Your task to perform on an android device: toggle pop-ups in chrome Image 0: 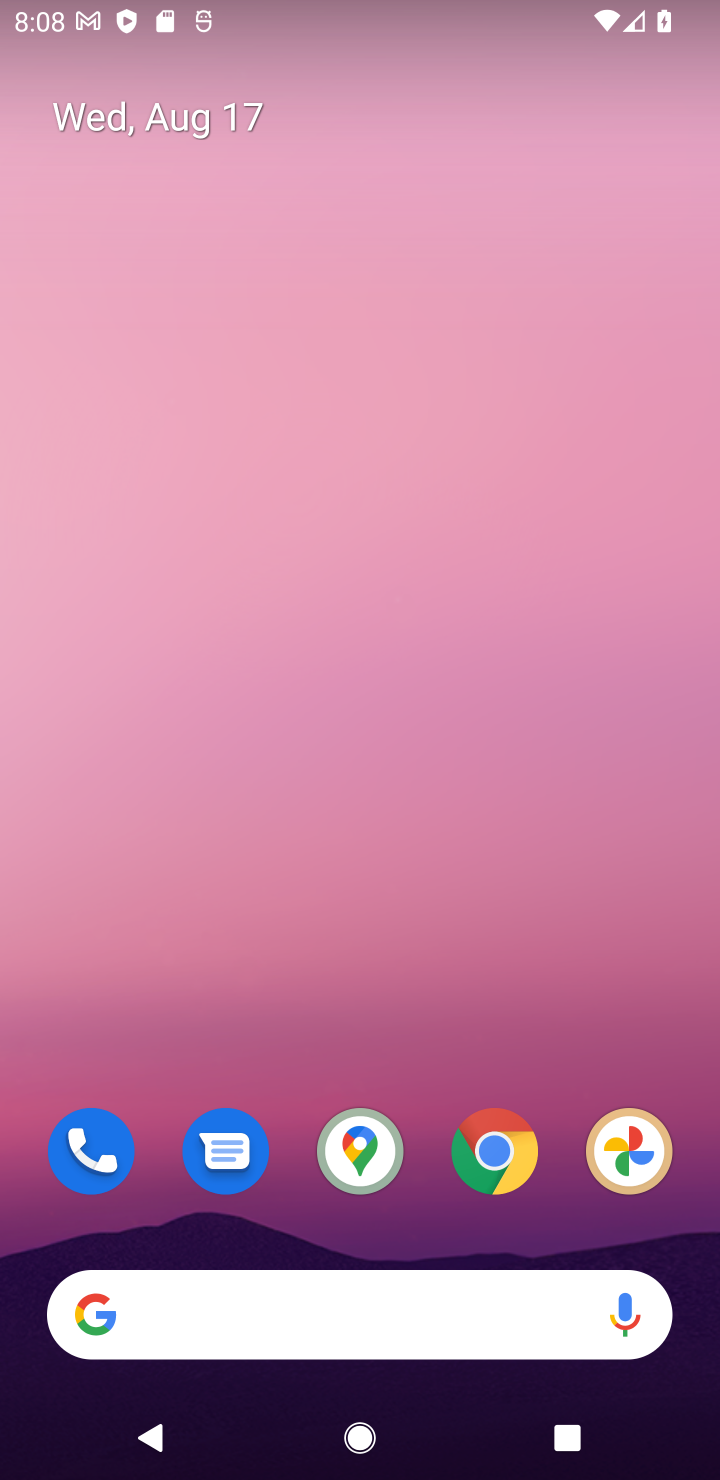
Step 0: drag from (585, 645) to (674, 4)
Your task to perform on an android device: toggle pop-ups in chrome Image 1: 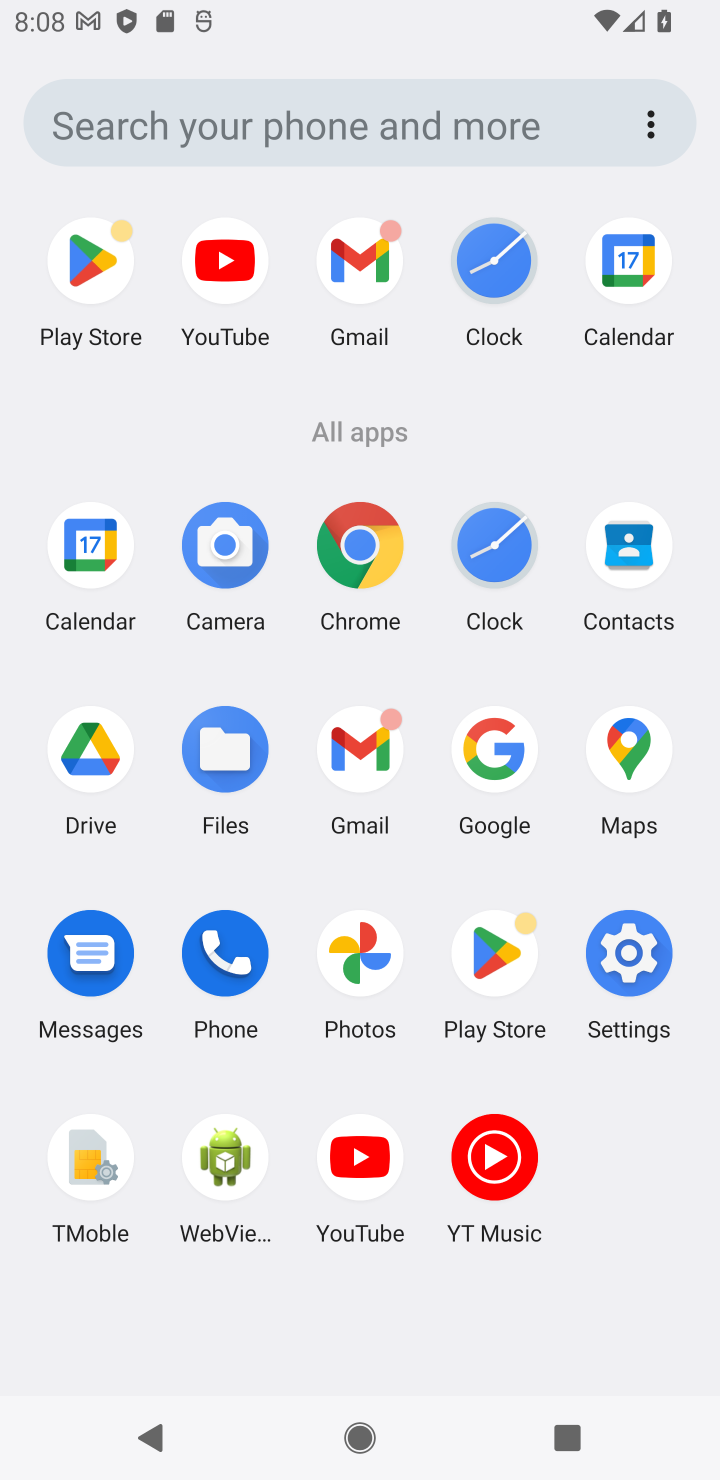
Step 1: click (350, 552)
Your task to perform on an android device: toggle pop-ups in chrome Image 2: 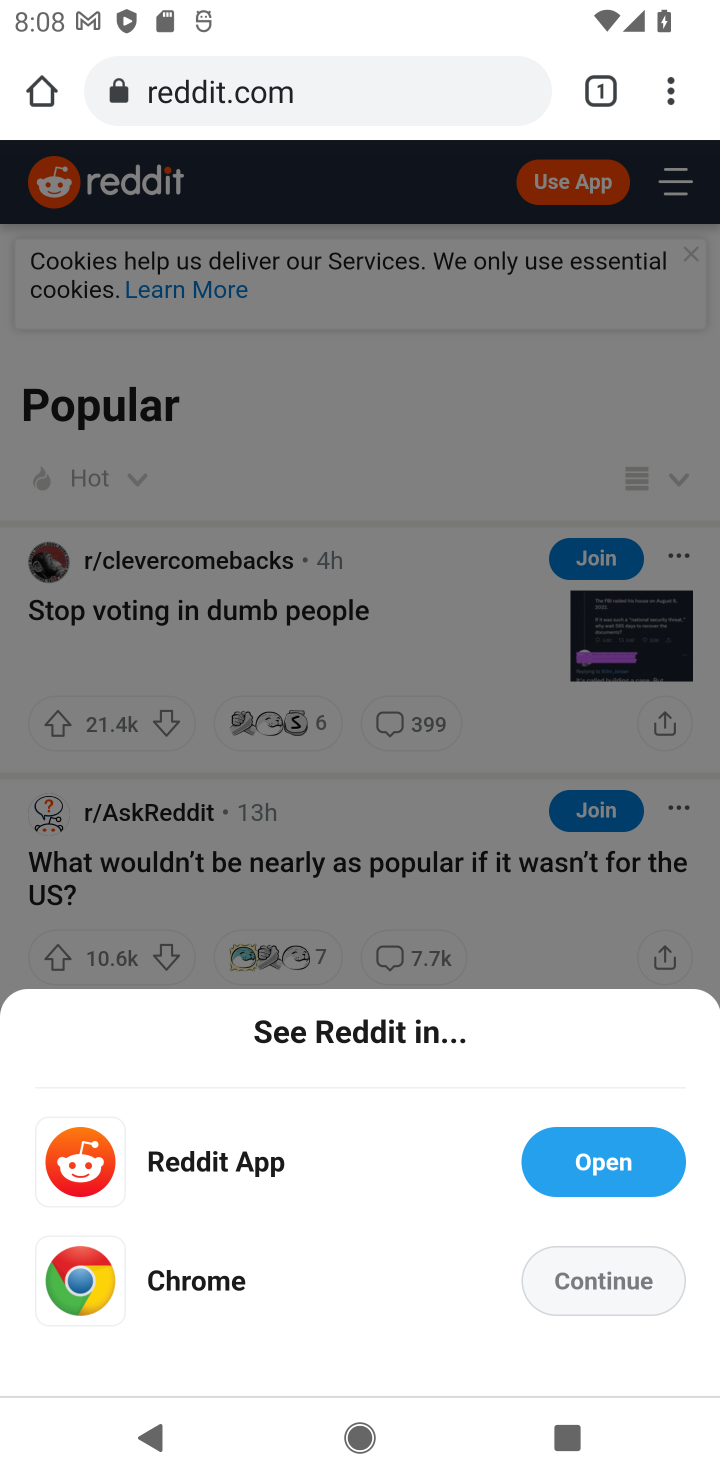
Step 2: drag from (663, 78) to (404, 1061)
Your task to perform on an android device: toggle pop-ups in chrome Image 3: 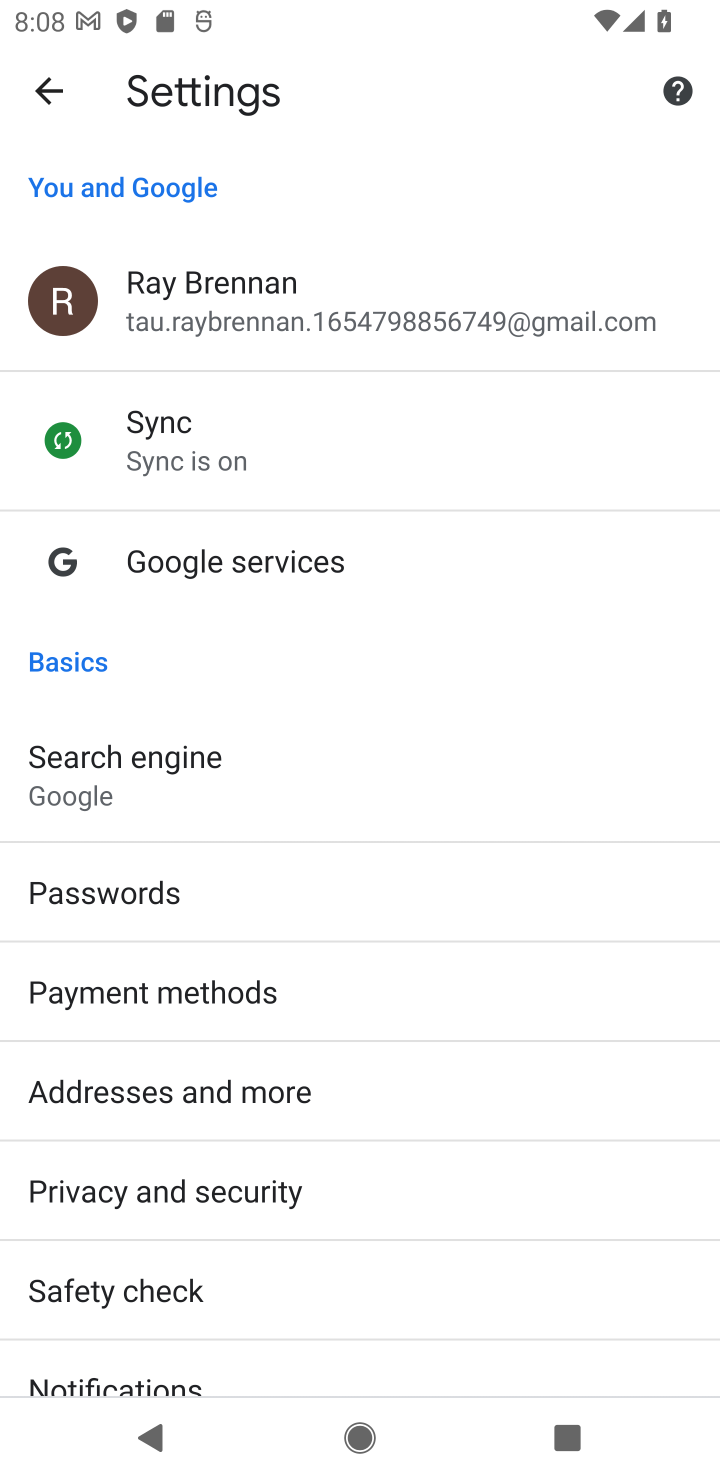
Step 3: drag from (576, 1273) to (576, 284)
Your task to perform on an android device: toggle pop-ups in chrome Image 4: 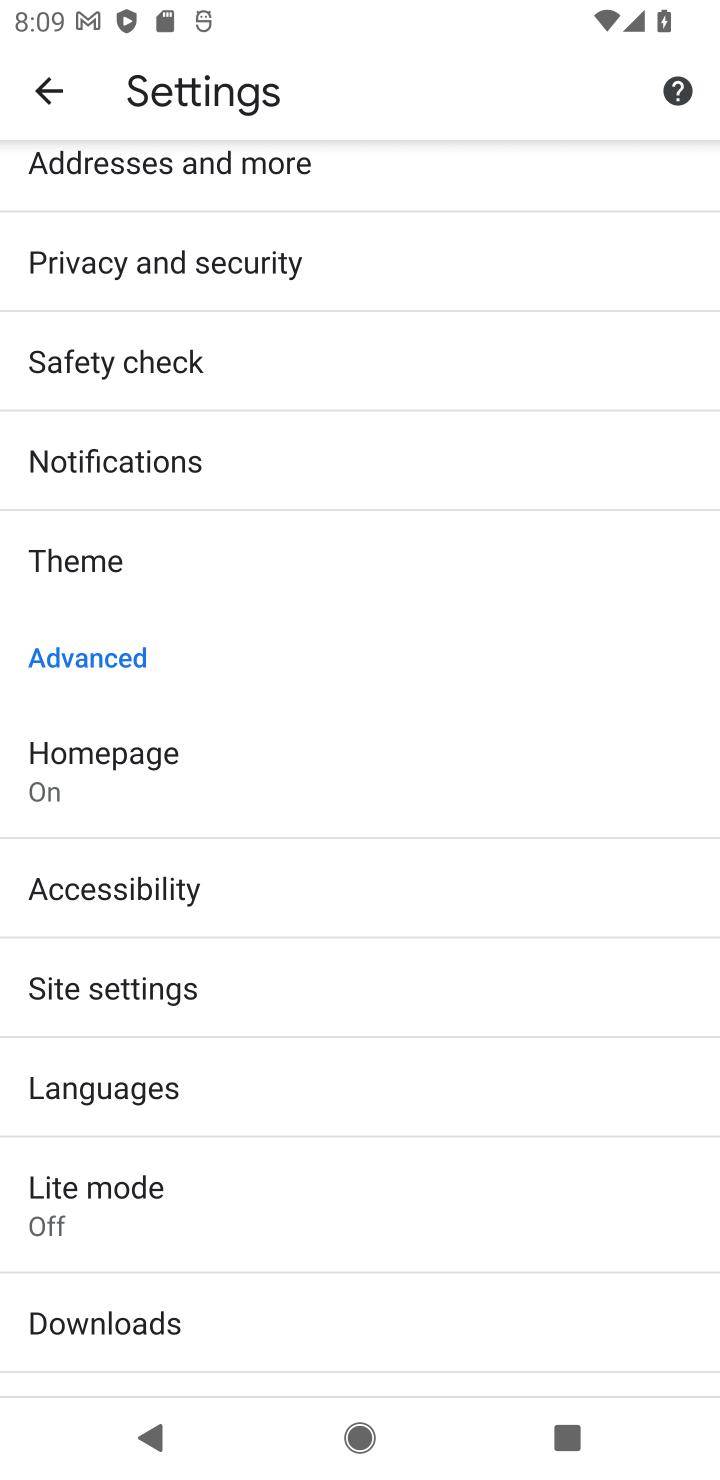
Step 4: click (157, 984)
Your task to perform on an android device: toggle pop-ups in chrome Image 5: 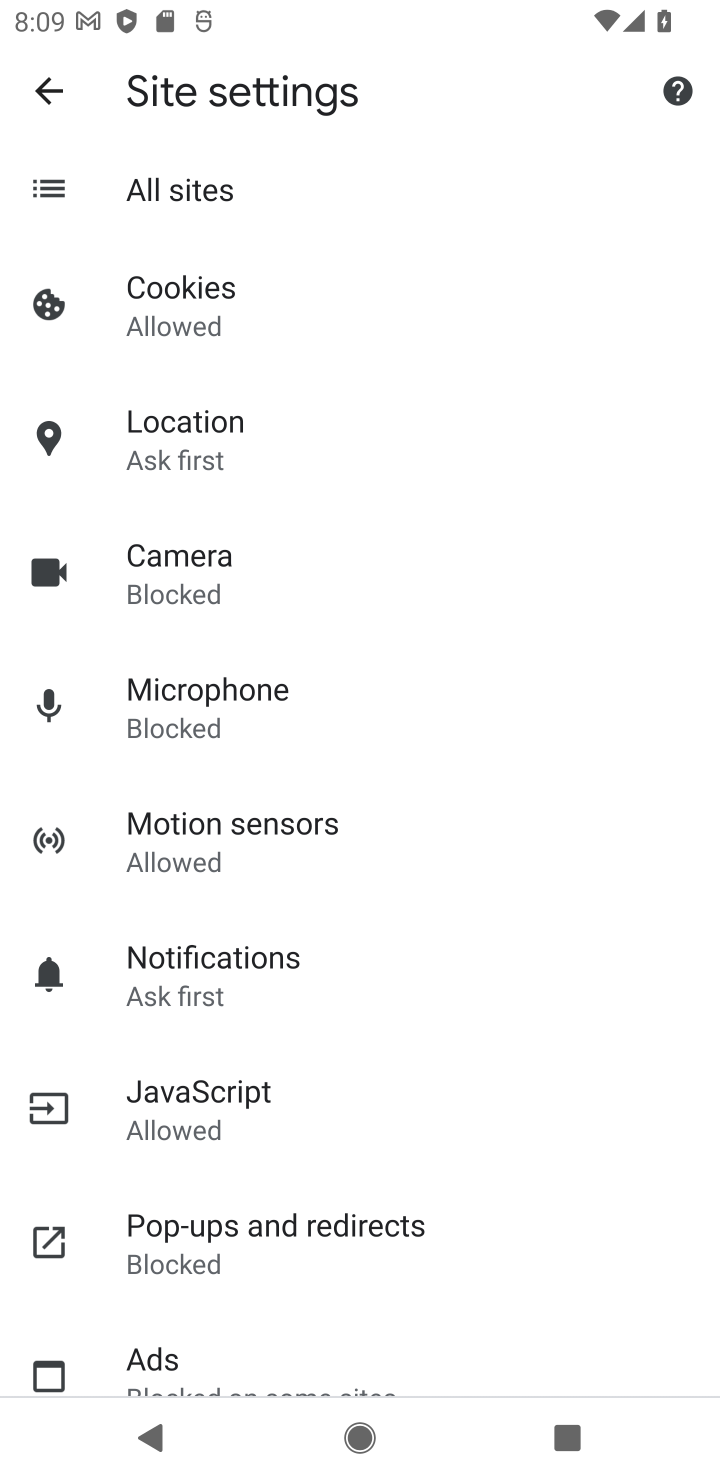
Step 5: click (286, 1237)
Your task to perform on an android device: toggle pop-ups in chrome Image 6: 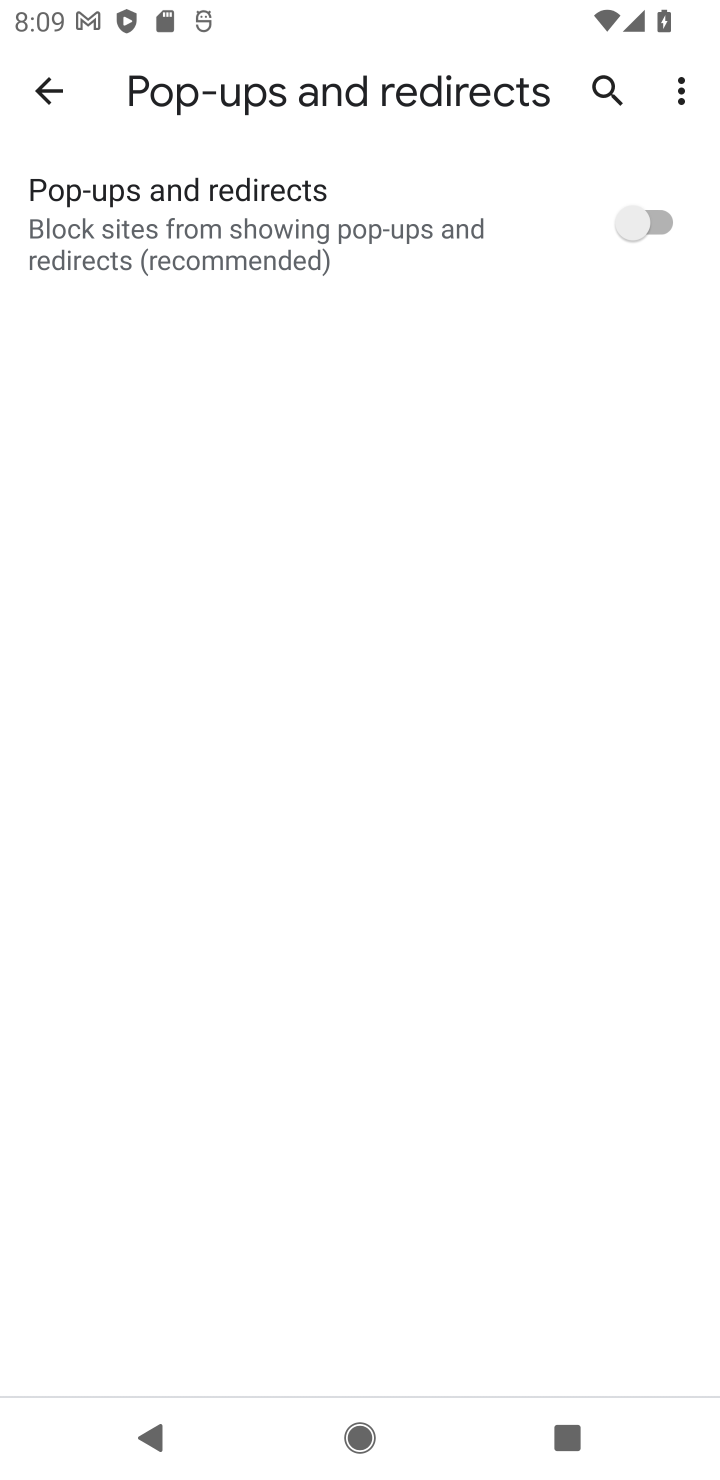
Step 6: click (605, 234)
Your task to perform on an android device: toggle pop-ups in chrome Image 7: 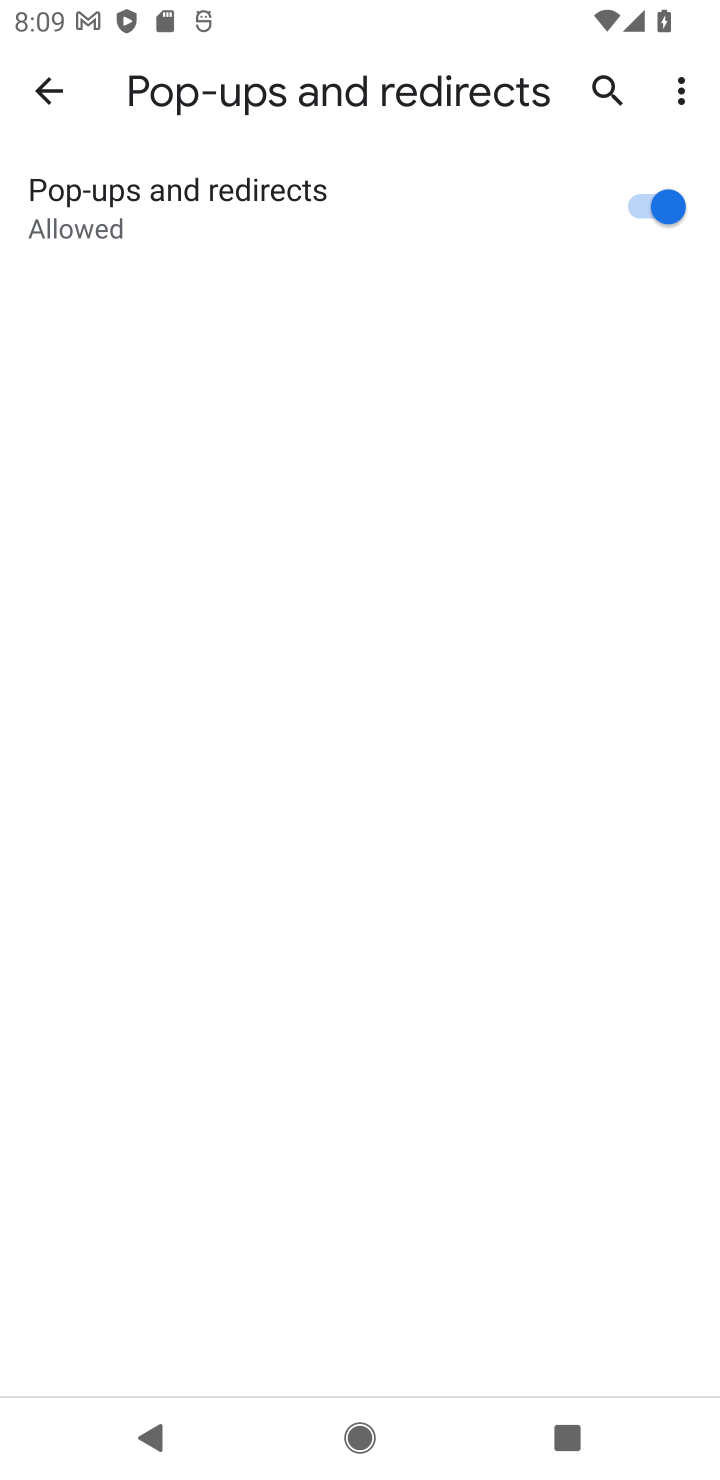
Step 7: task complete